Your task to perform on an android device: turn pop-ups off in chrome Image 0: 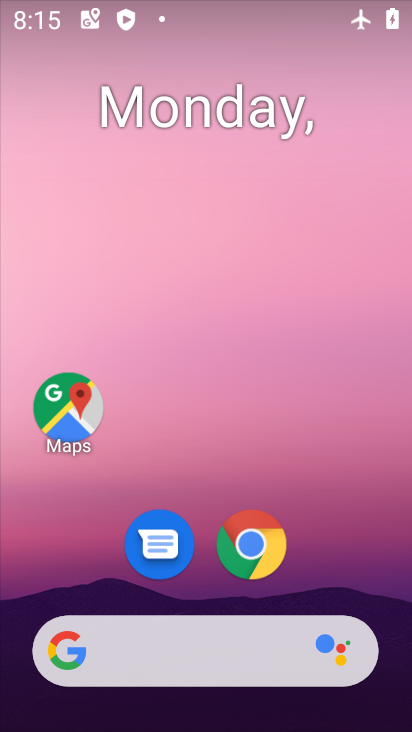
Step 0: click (257, 551)
Your task to perform on an android device: turn pop-ups off in chrome Image 1: 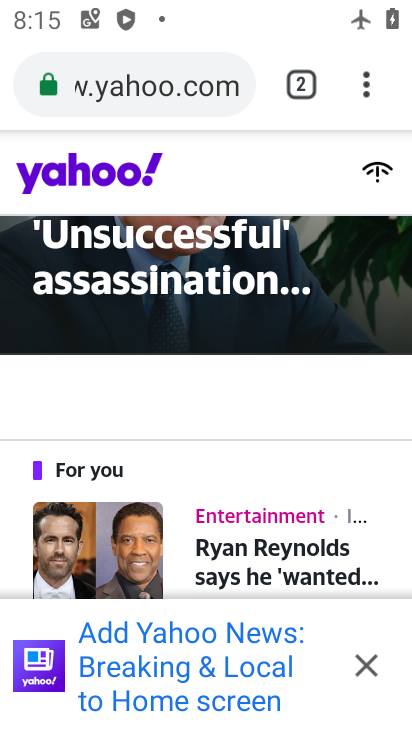
Step 1: click (362, 78)
Your task to perform on an android device: turn pop-ups off in chrome Image 2: 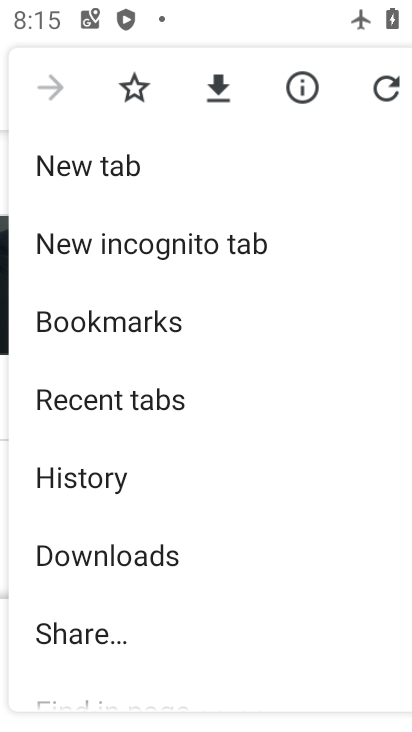
Step 2: drag from (235, 497) to (161, 76)
Your task to perform on an android device: turn pop-ups off in chrome Image 3: 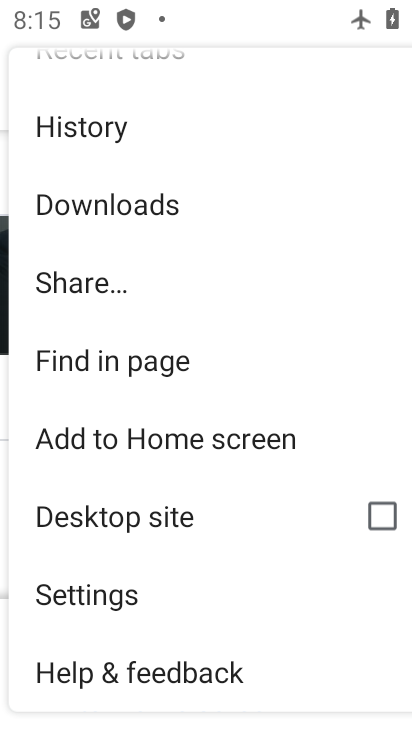
Step 3: drag from (252, 555) to (218, 152)
Your task to perform on an android device: turn pop-ups off in chrome Image 4: 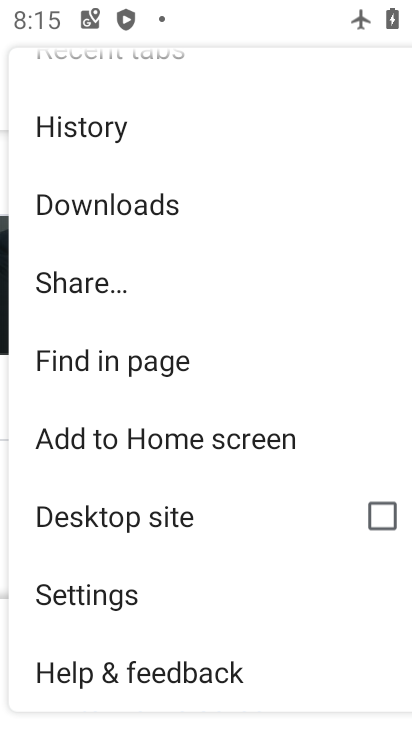
Step 4: click (105, 599)
Your task to perform on an android device: turn pop-ups off in chrome Image 5: 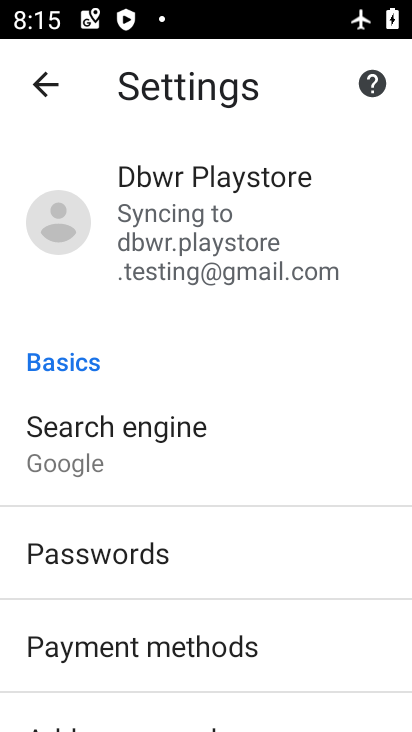
Step 5: drag from (212, 523) to (179, 156)
Your task to perform on an android device: turn pop-ups off in chrome Image 6: 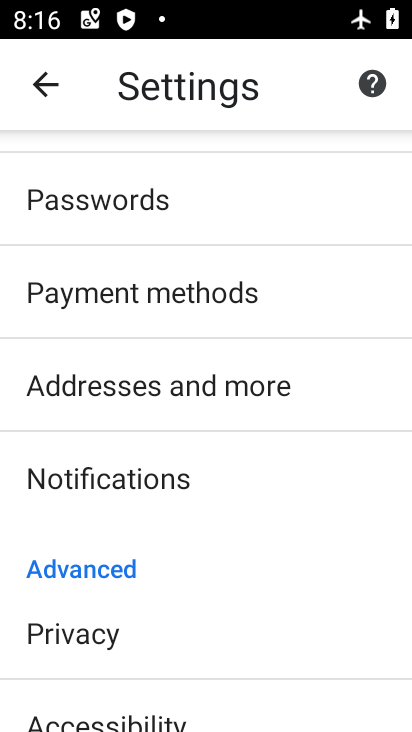
Step 6: drag from (260, 512) to (254, 249)
Your task to perform on an android device: turn pop-ups off in chrome Image 7: 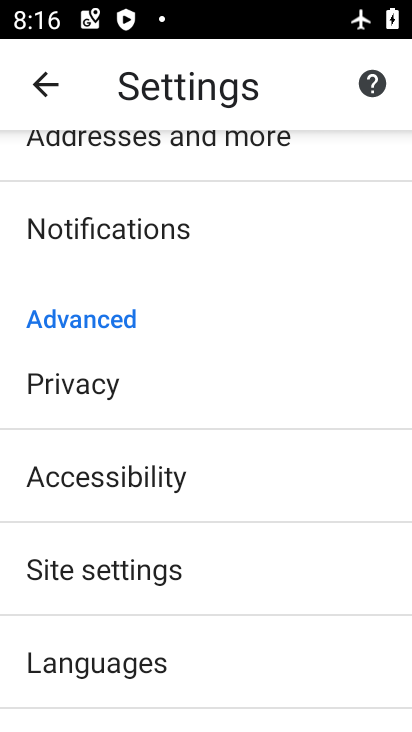
Step 7: click (133, 558)
Your task to perform on an android device: turn pop-ups off in chrome Image 8: 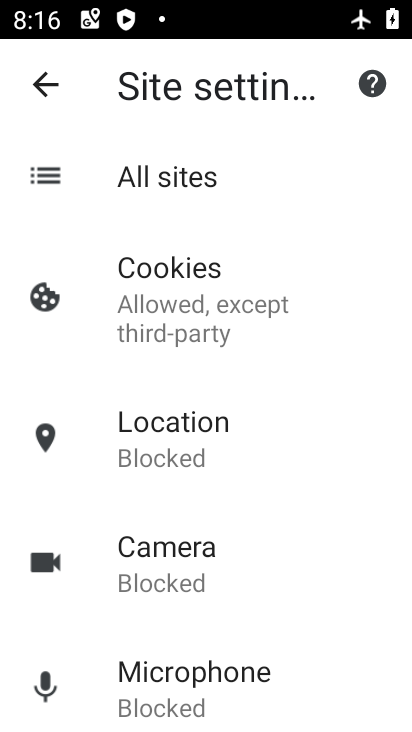
Step 8: drag from (267, 583) to (224, 237)
Your task to perform on an android device: turn pop-ups off in chrome Image 9: 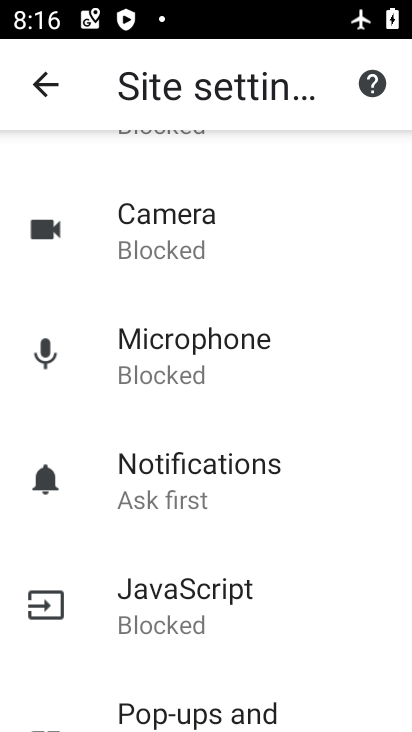
Step 9: click (205, 711)
Your task to perform on an android device: turn pop-ups off in chrome Image 10: 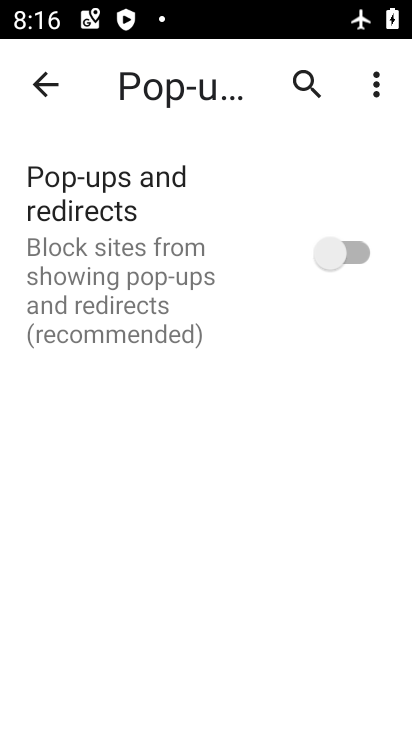
Step 10: task complete